Your task to perform on an android device: delete a single message in the gmail app Image 0: 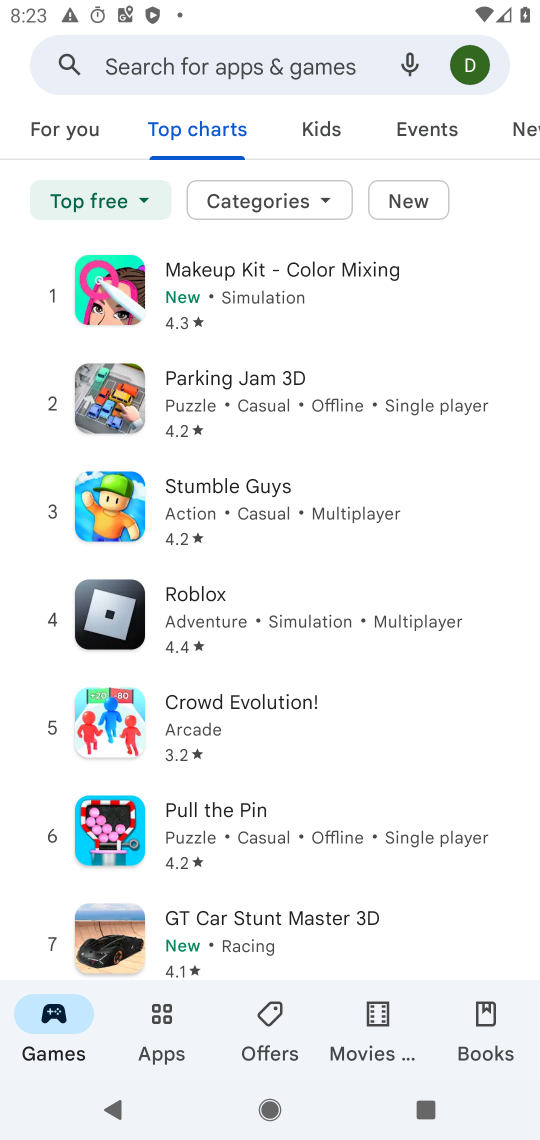
Step 0: press home button
Your task to perform on an android device: delete a single message in the gmail app Image 1: 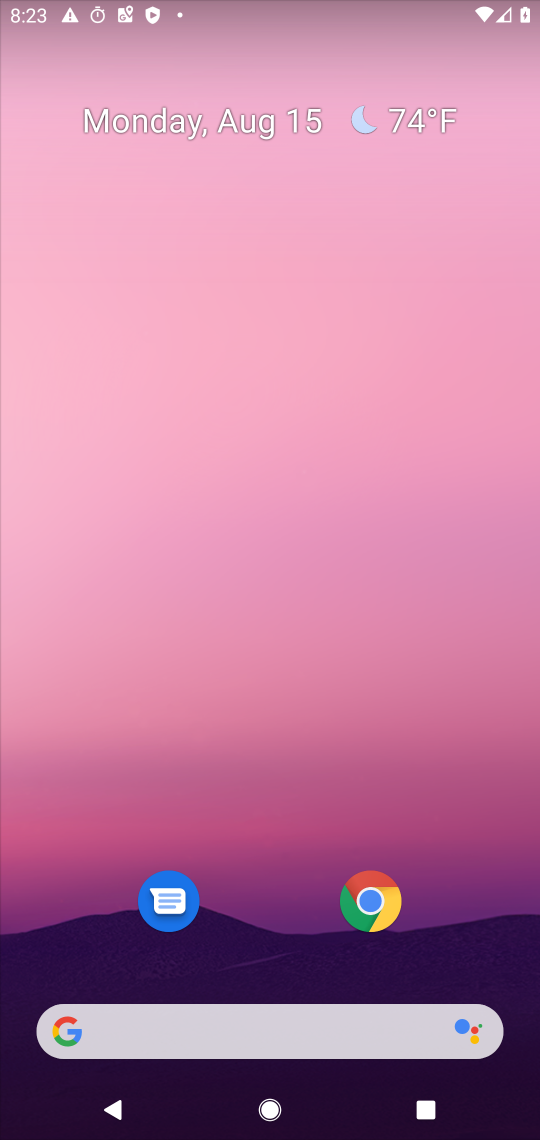
Step 1: drag from (248, 986) to (328, 1)
Your task to perform on an android device: delete a single message in the gmail app Image 2: 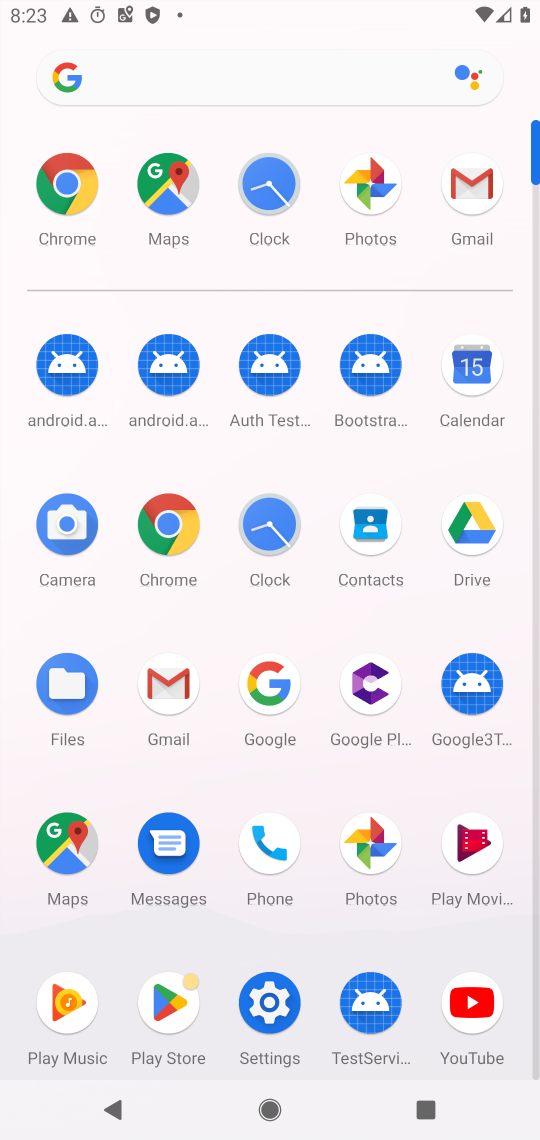
Step 2: click (480, 203)
Your task to perform on an android device: delete a single message in the gmail app Image 3: 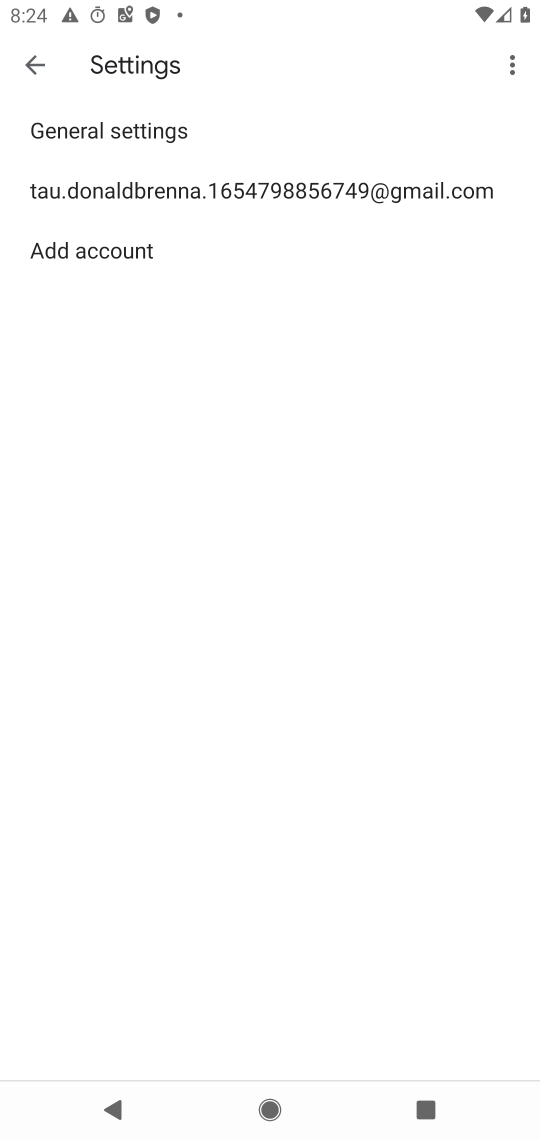
Step 3: click (47, 60)
Your task to perform on an android device: delete a single message in the gmail app Image 4: 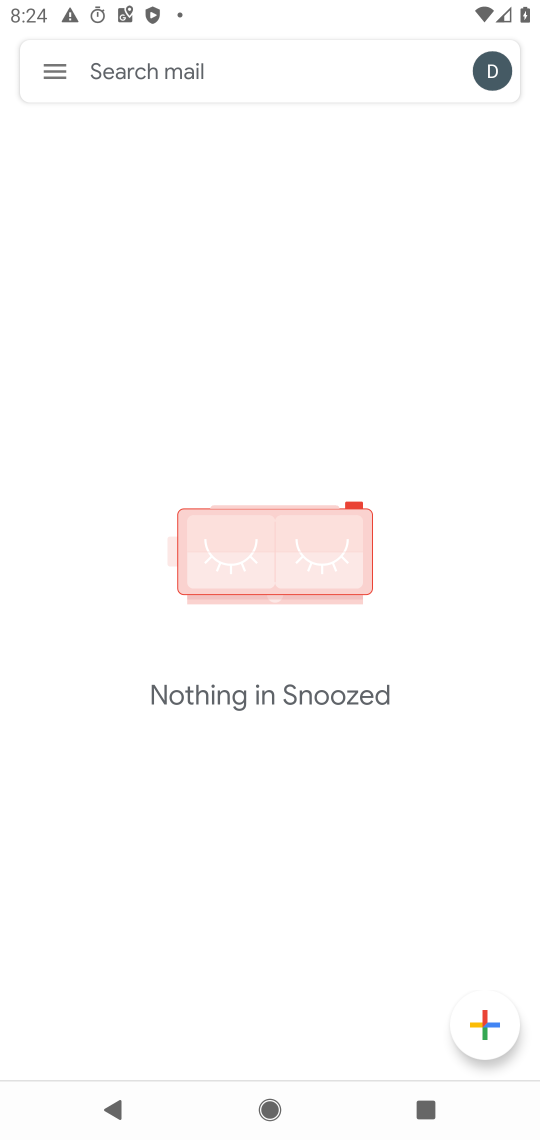
Step 4: click (49, 78)
Your task to perform on an android device: delete a single message in the gmail app Image 5: 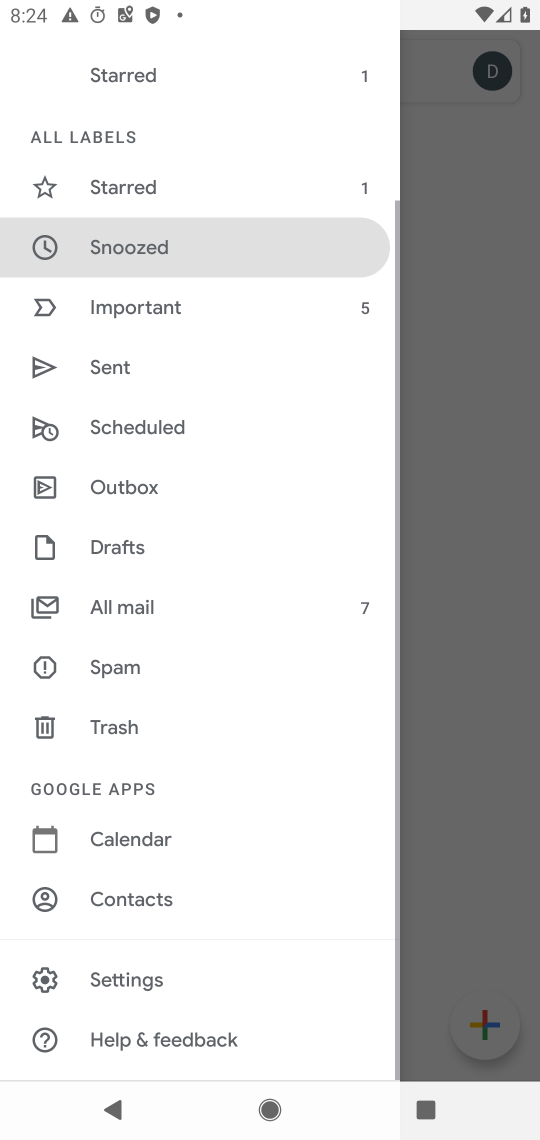
Step 5: drag from (164, 205) to (171, 545)
Your task to perform on an android device: delete a single message in the gmail app Image 6: 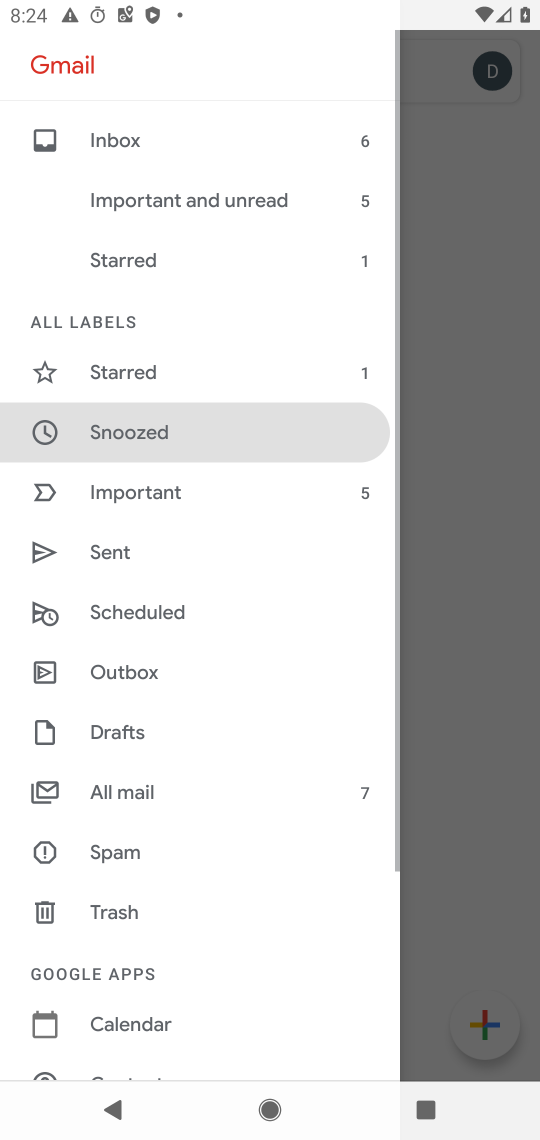
Step 6: click (162, 149)
Your task to perform on an android device: delete a single message in the gmail app Image 7: 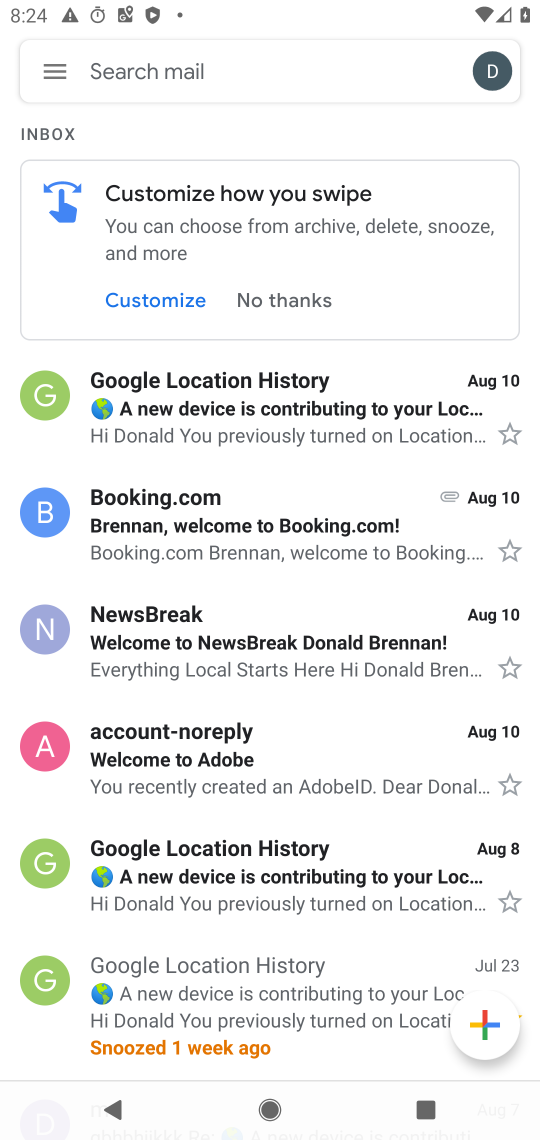
Step 7: click (43, 512)
Your task to perform on an android device: delete a single message in the gmail app Image 8: 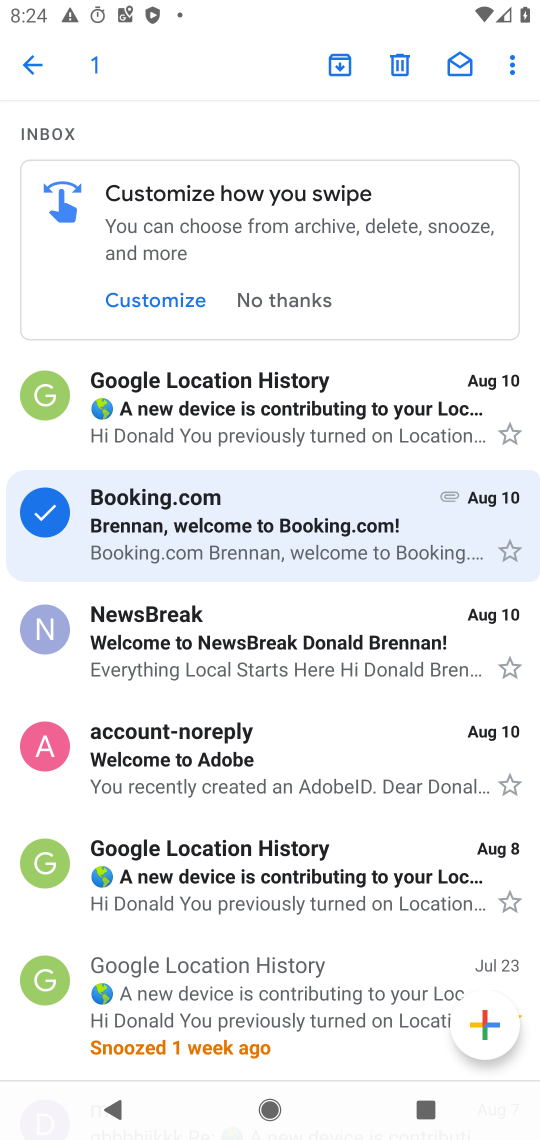
Step 8: click (395, 61)
Your task to perform on an android device: delete a single message in the gmail app Image 9: 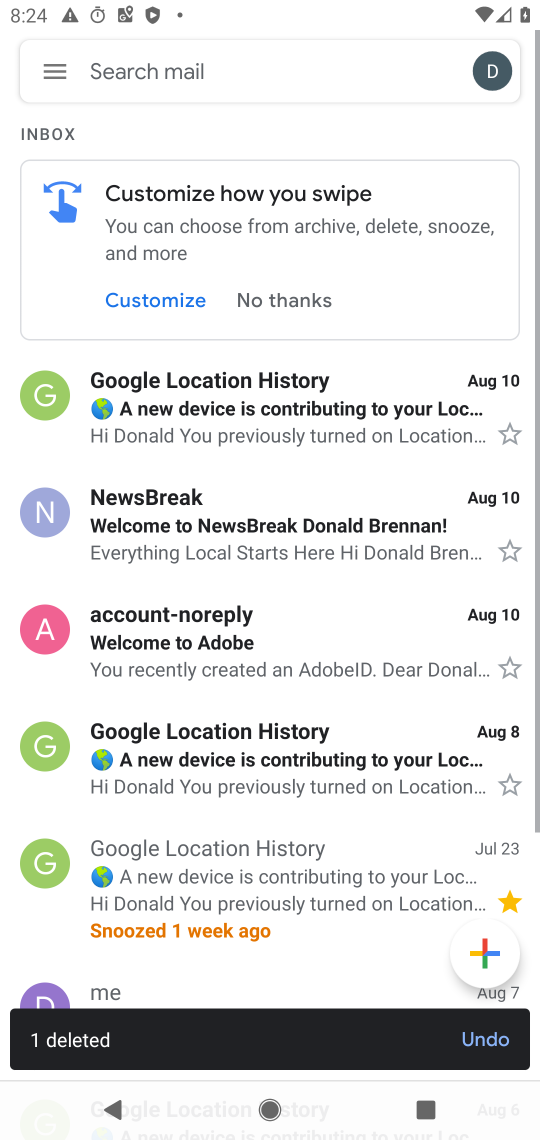
Step 9: task complete